Your task to perform on an android device: Go to notification settings Image 0: 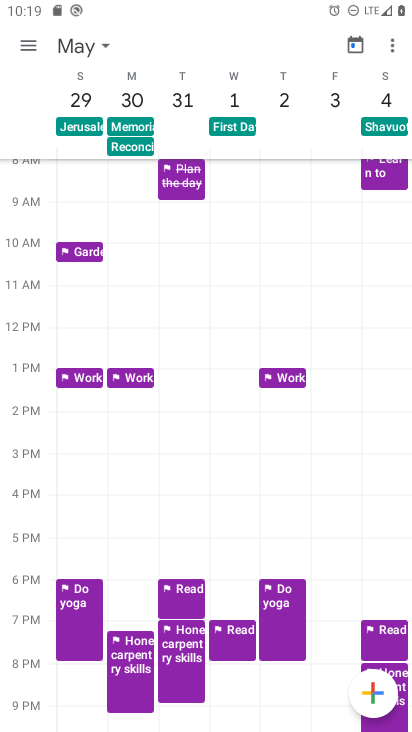
Step 0: press home button
Your task to perform on an android device: Go to notification settings Image 1: 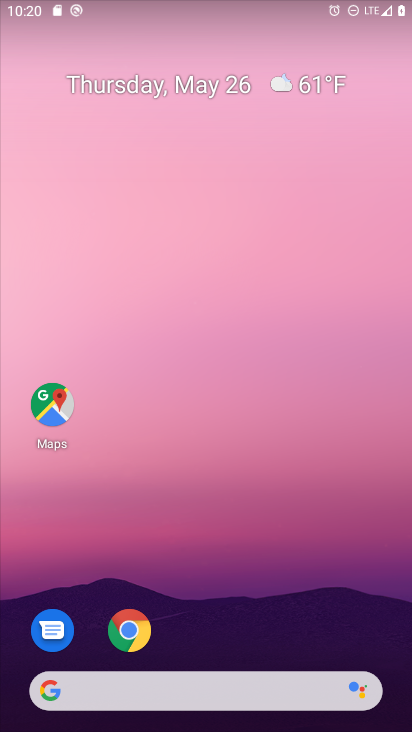
Step 1: drag from (171, 652) to (159, 21)
Your task to perform on an android device: Go to notification settings Image 2: 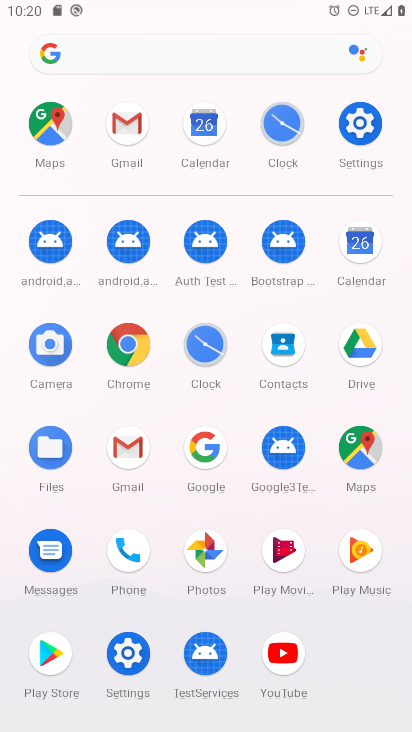
Step 2: click (356, 131)
Your task to perform on an android device: Go to notification settings Image 3: 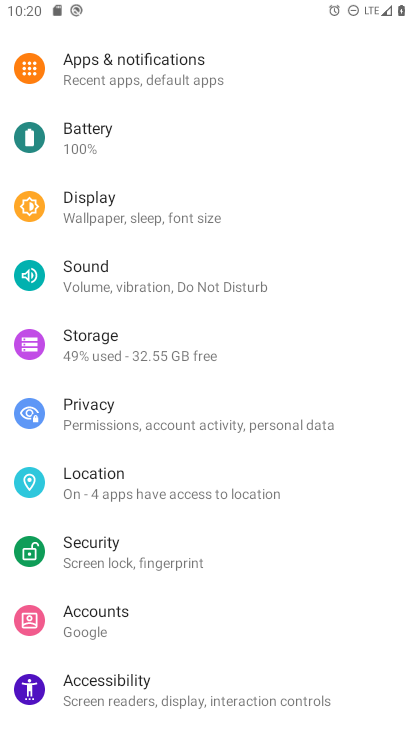
Step 3: click (156, 47)
Your task to perform on an android device: Go to notification settings Image 4: 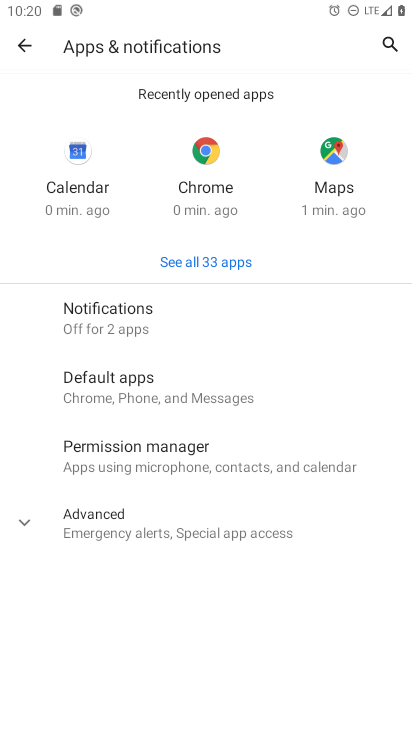
Step 4: click (155, 325)
Your task to perform on an android device: Go to notification settings Image 5: 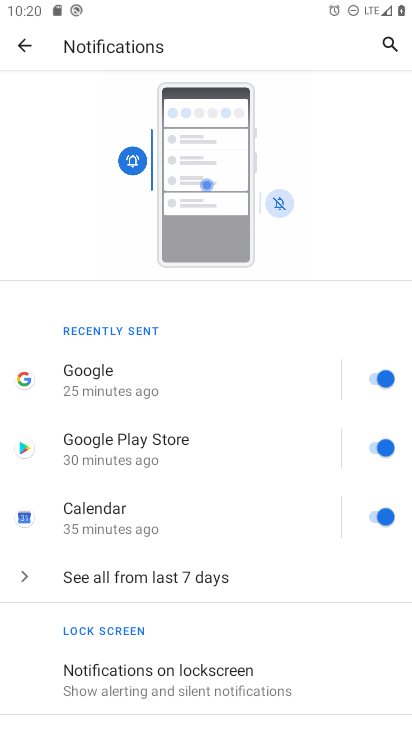
Step 5: task complete